Your task to perform on an android device: turn off translation in the chrome app Image 0: 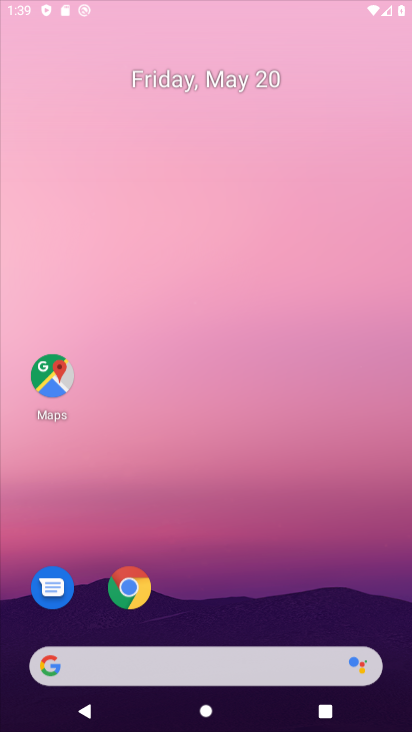
Step 0: click (113, 65)
Your task to perform on an android device: turn off translation in the chrome app Image 1: 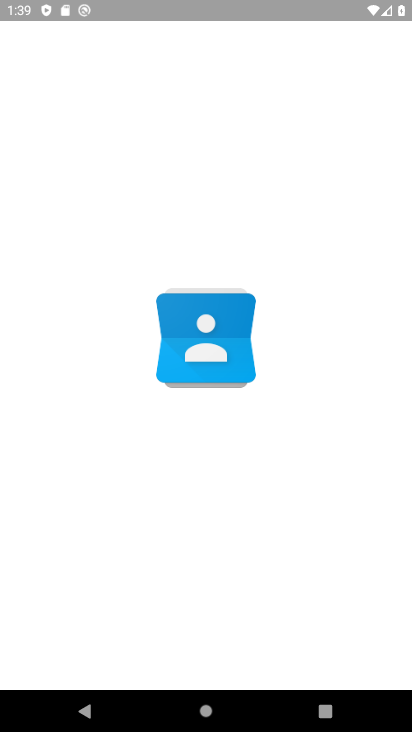
Step 1: drag from (290, 682) to (116, 67)
Your task to perform on an android device: turn off translation in the chrome app Image 2: 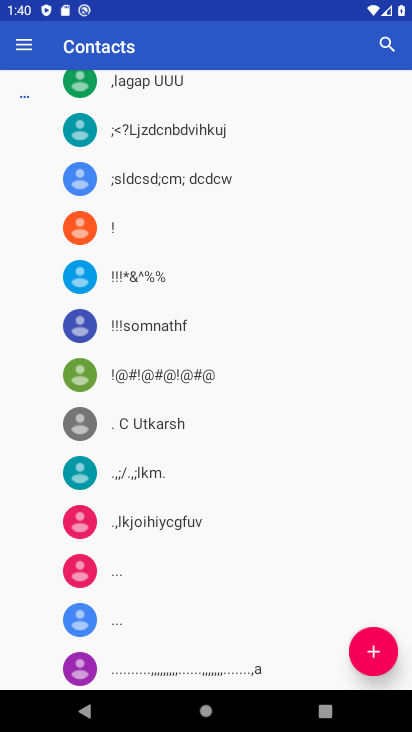
Step 2: press back button
Your task to perform on an android device: turn off translation in the chrome app Image 3: 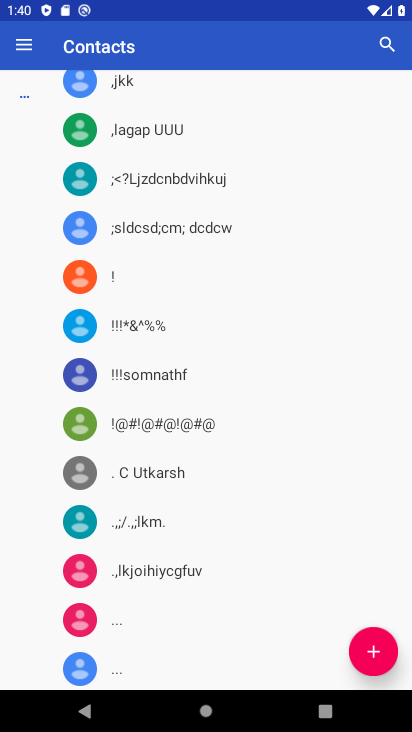
Step 3: press back button
Your task to perform on an android device: turn off translation in the chrome app Image 4: 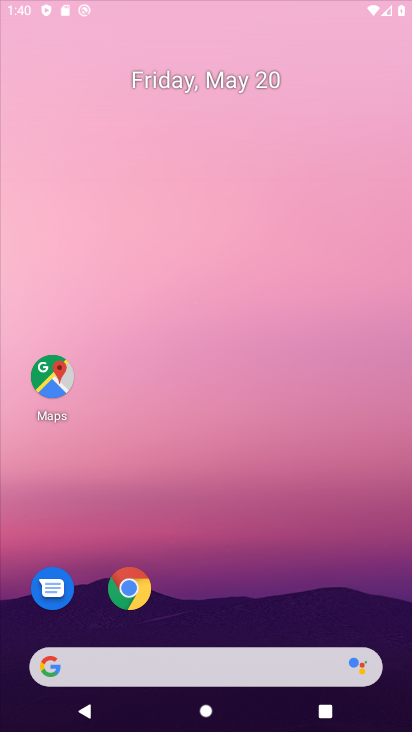
Step 4: press back button
Your task to perform on an android device: turn off translation in the chrome app Image 5: 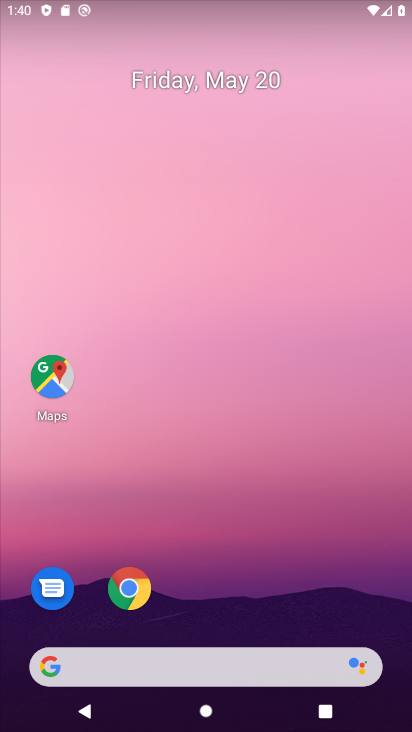
Step 5: drag from (301, 708) to (245, 54)
Your task to perform on an android device: turn off translation in the chrome app Image 6: 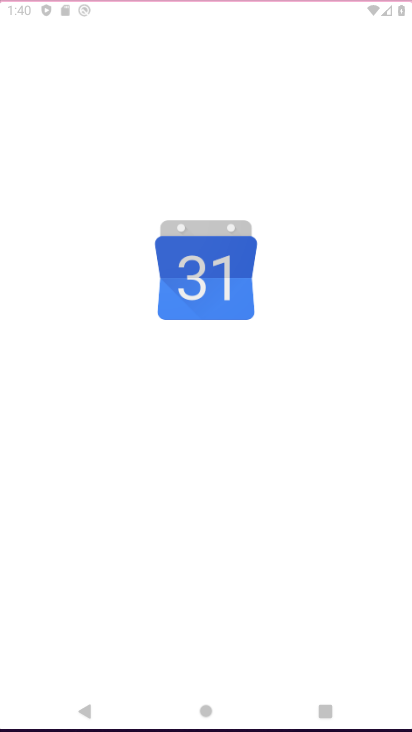
Step 6: drag from (253, 596) to (89, 1)
Your task to perform on an android device: turn off translation in the chrome app Image 7: 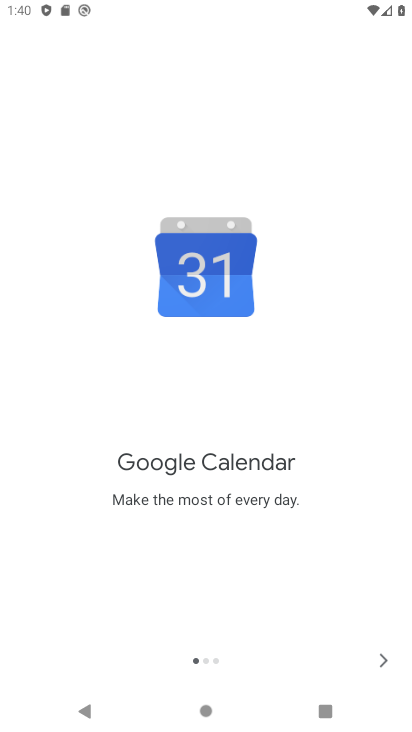
Step 7: press home button
Your task to perform on an android device: turn off translation in the chrome app Image 8: 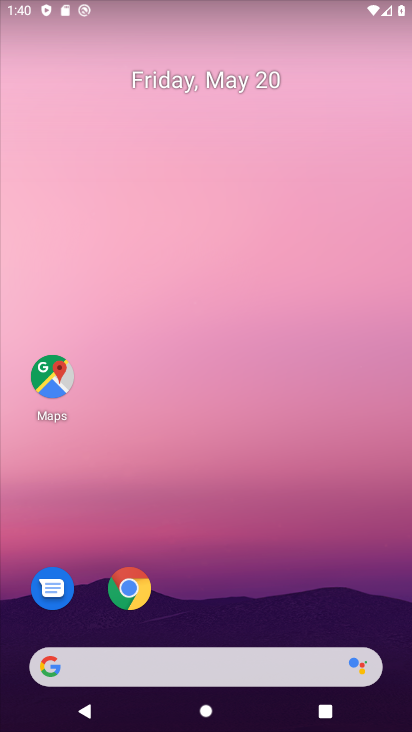
Step 8: drag from (276, 662) to (154, 0)
Your task to perform on an android device: turn off translation in the chrome app Image 9: 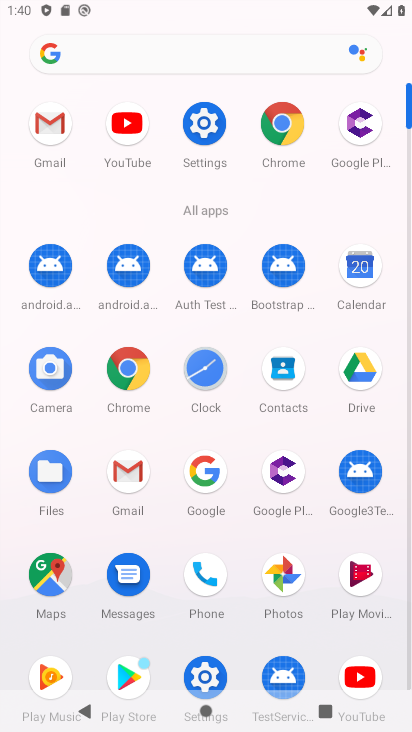
Step 9: click (274, 134)
Your task to perform on an android device: turn off translation in the chrome app Image 10: 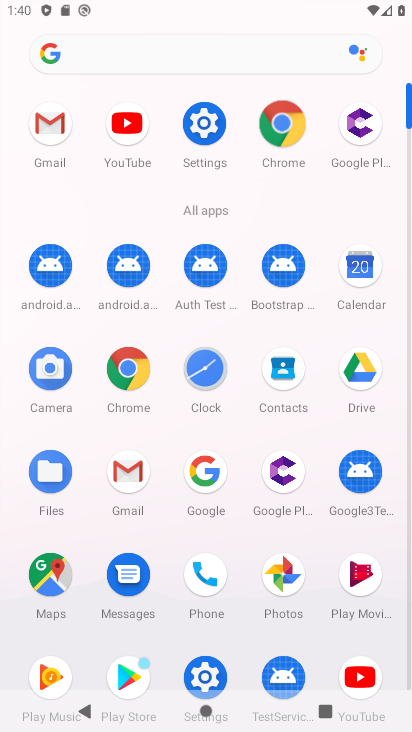
Step 10: click (275, 133)
Your task to perform on an android device: turn off translation in the chrome app Image 11: 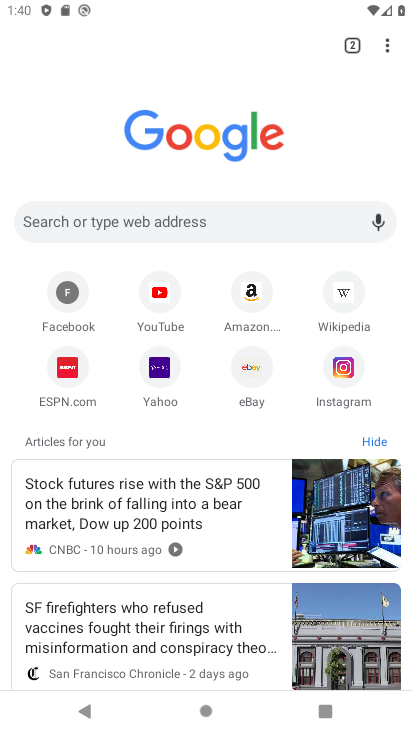
Step 11: drag from (383, 46) to (230, 381)
Your task to perform on an android device: turn off translation in the chrome app Image 12: 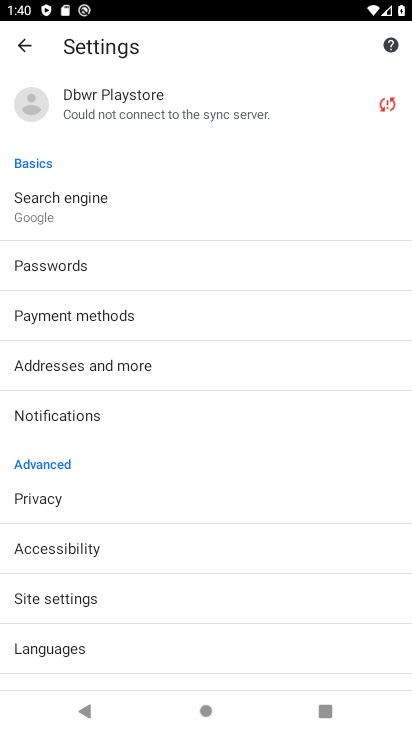
Step 12: drag from (93, 561) to (47, 147)
Your task to perform on an android device: turn off translation in the chrome app Image 13: 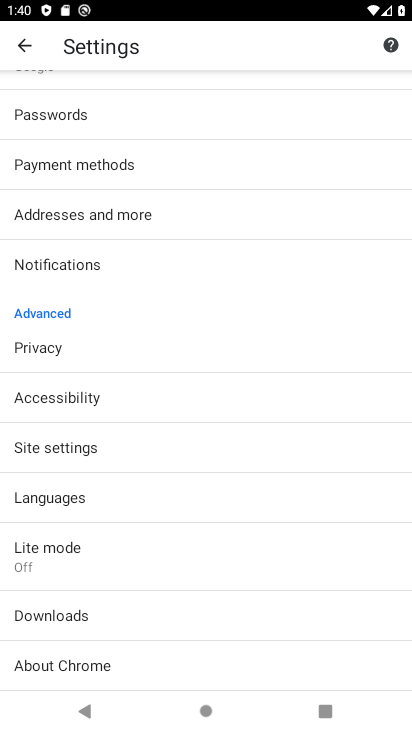
Step 13: click (43, 491)
Your task to perform on an android device: turn off translation in the chrome app Image 14: 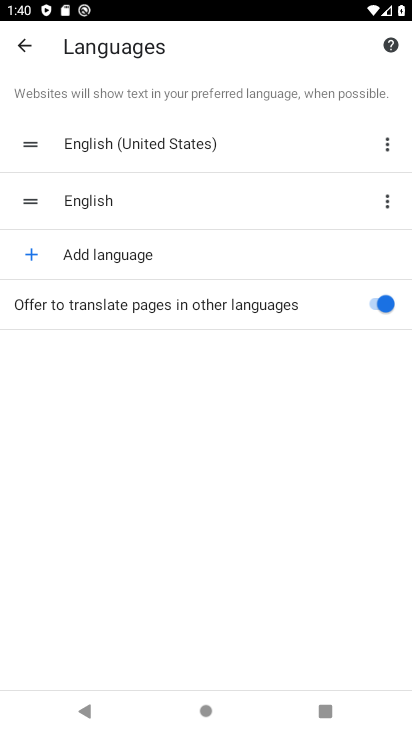
Step 14: click (389, 309)
Your task to perform on an android device: turn off translation in the chrome app Image 15: 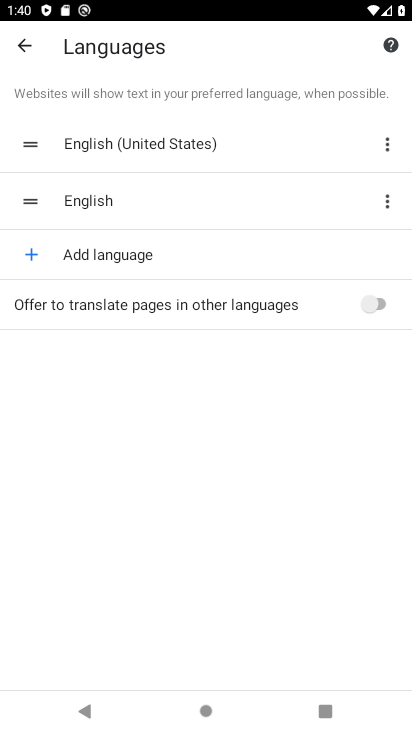
Step 15: task complete